Your task to perform on an android device: Open Youtube and go to the subscriptions tab Image 0: 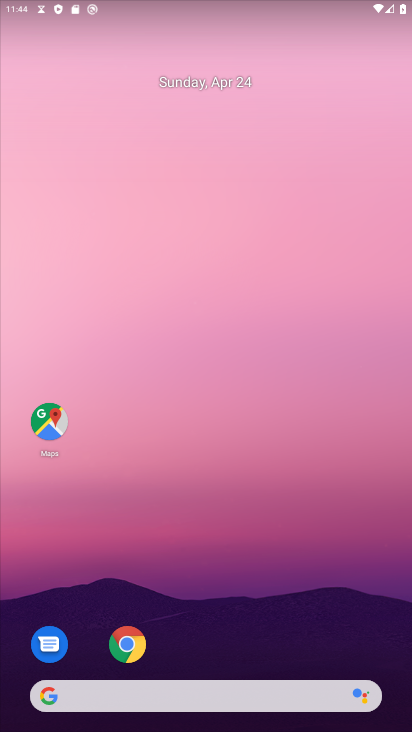
Step 0: drag from (353, 553) to (363, 46)
Your task to perform on an android device: Open Youtube and go to the subscriptions tab Image 1: 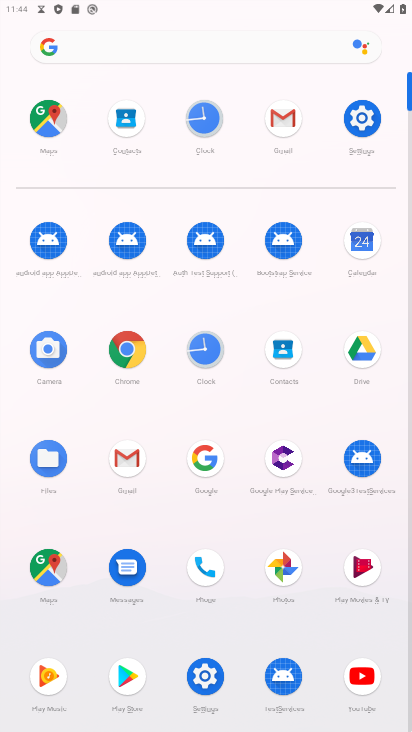
Step 1: click (358, 681)
Your task to perform on an android device: Open Youtube and go to the subscriptions tab Image 2: 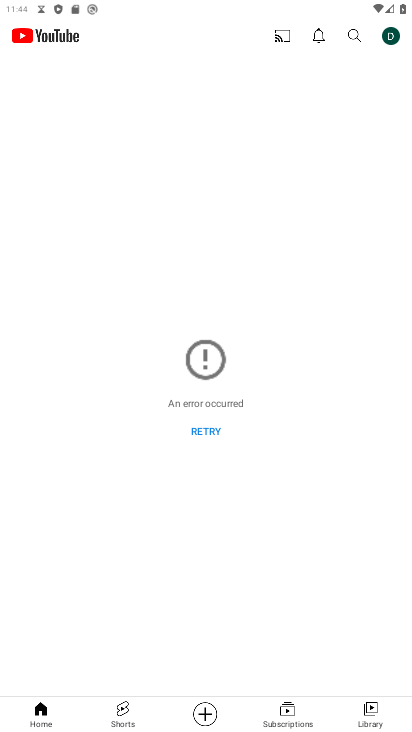
Step 2: click (286, 710)
Your task to perform on an android device: Open Youtube and go to the subscriptions tab Image 3: 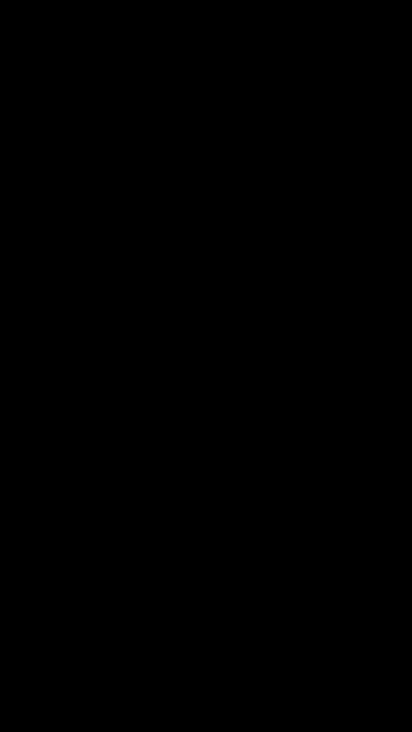
Step 3: task complete